Your task to perform on an android device: Open the Play Movies app and select the watchlist tab. Image 0: 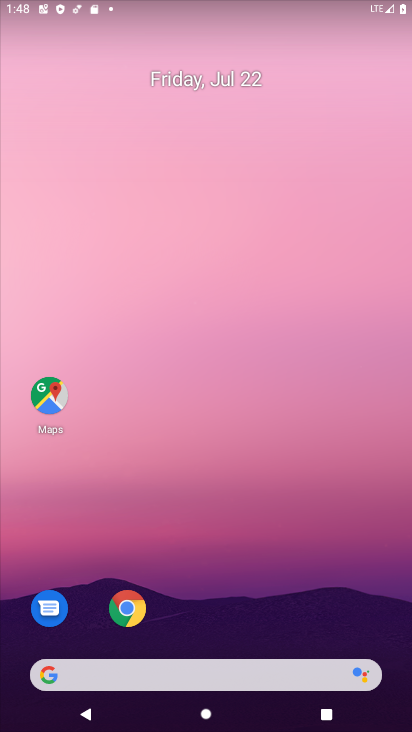
Step 0: drag from (164, 727) to (217, 151)
Your task to perform on an android device: Open the Play Movies app and select the watchlist tab. Image 1: 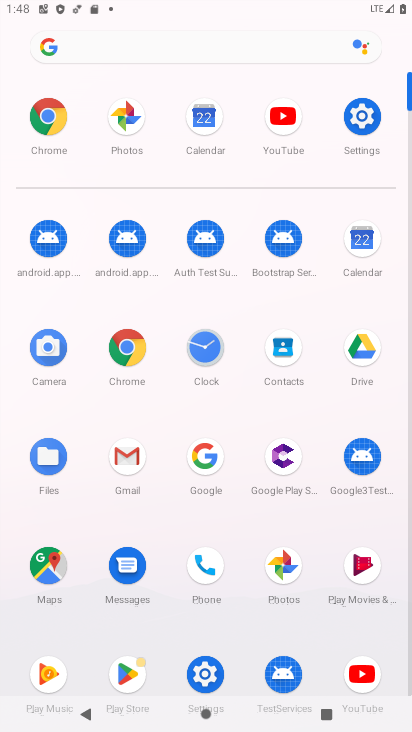
Step 1: click (364, 565)
Your task to perform on an android device: Open the Play Movies app and select the watchlist tab. Image 2: 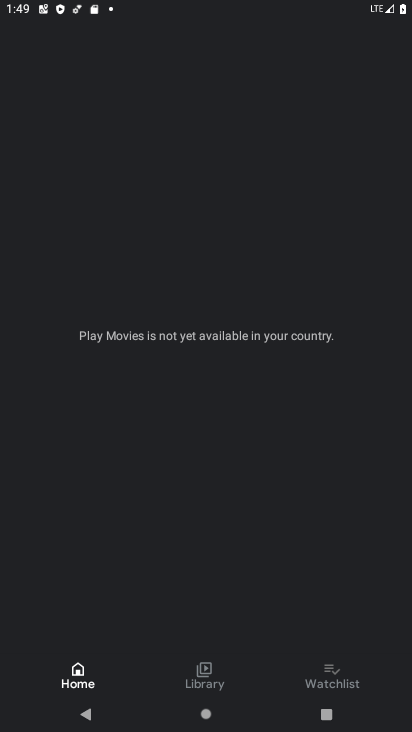
Step 2: click (337, 676)
Your task to perform on an android device: Open the Play Movies app and select the watchlist tab. Image 3: 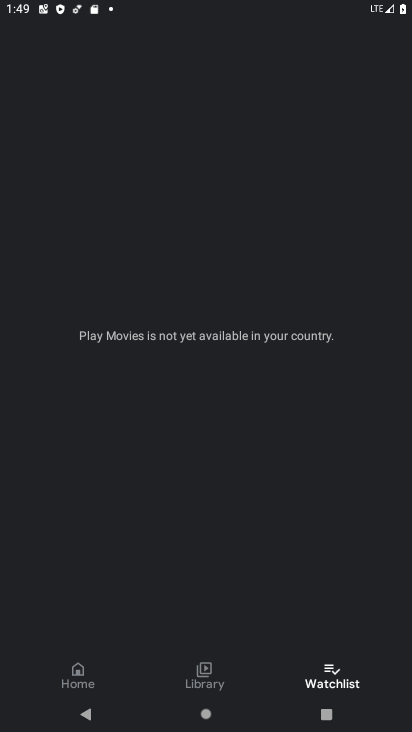
Step 3: task complete